Your task to perform on an android device: allow cookies in the chrome app Image 0: 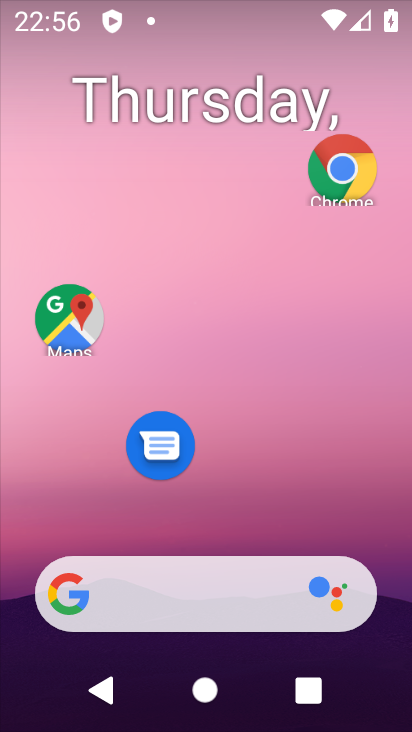
Step 0: drag from (210, 511) to (400, 507)
Your task to perform on an android device: allow cookies in the chrome app Image 1: 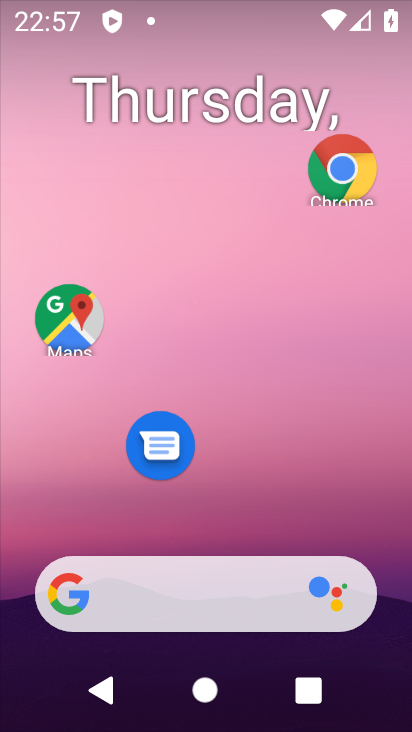
Step 1: click (348, 158)
Your task to perform on an android device: allow cookies in the chrome app Image 2: 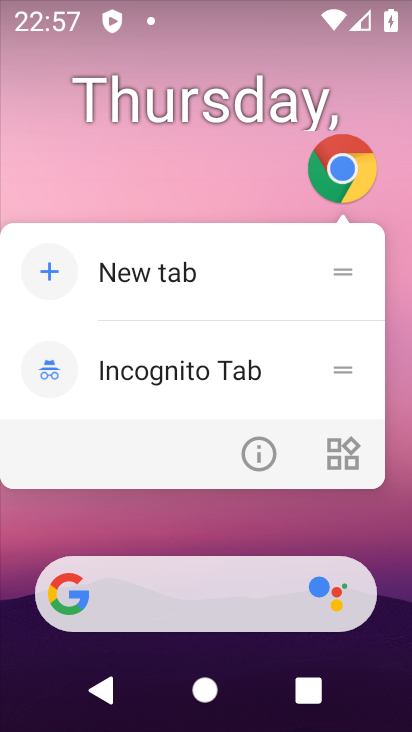
Step 2: click (256, 462)
Your task to perform on an android device: allow cookies in the chrome app Image 3: 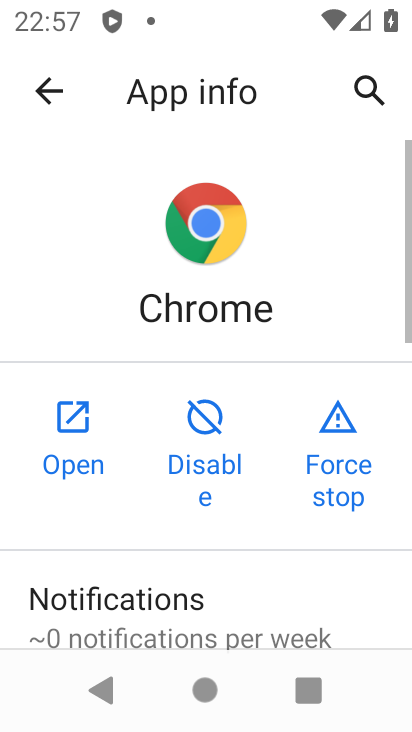
Step 3: click (103, 409)
Your task to perform on an android device: allow cookies in the chrome app Image 4: 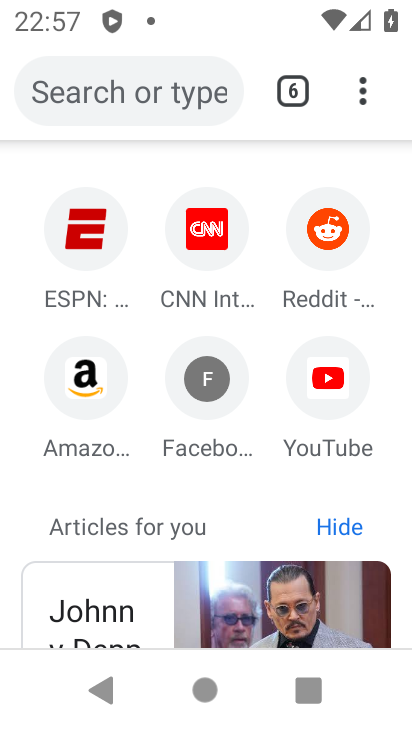
Step 4: drag from (270, 485) to (277, 179)
Your task to perform on an android device: allow cookies in the chrome app Image 5: 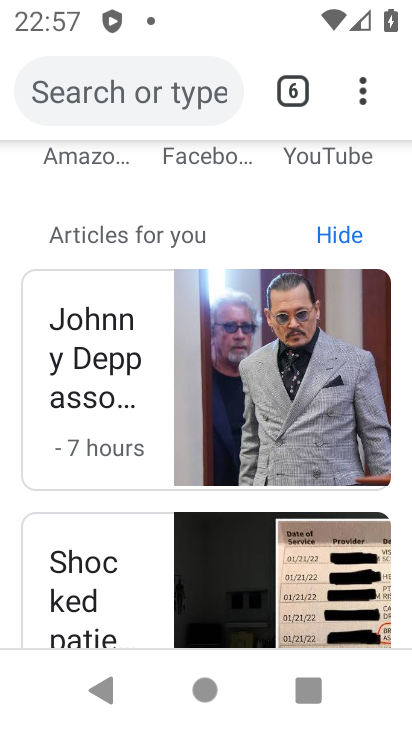
Step 5: drag from (261, 216) to (285, 647)
Your task to perform on an android device: allow cookies in the chrome app Image 6: 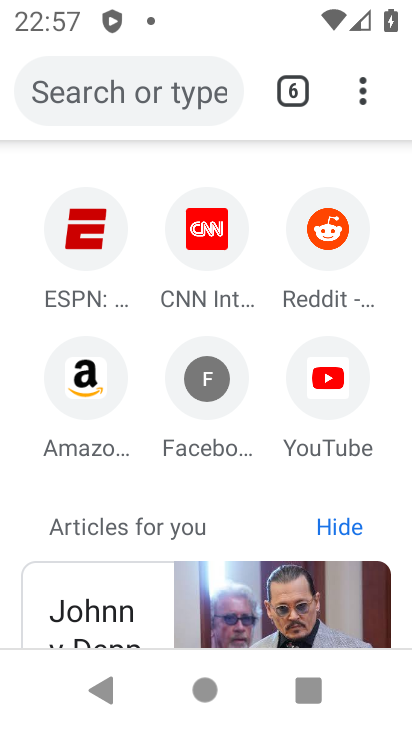
Step 6: click (348, 87)
Your task to perform on an android device: allow cookies in the chrome app Image 7: 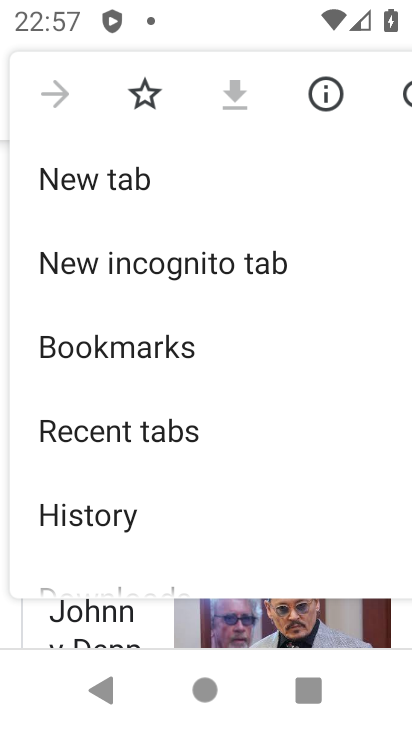
Step 7: drag from (207, 541) to (300, 19)
Your task to perform on an android device: allow cookies in the chrome app Image 8: 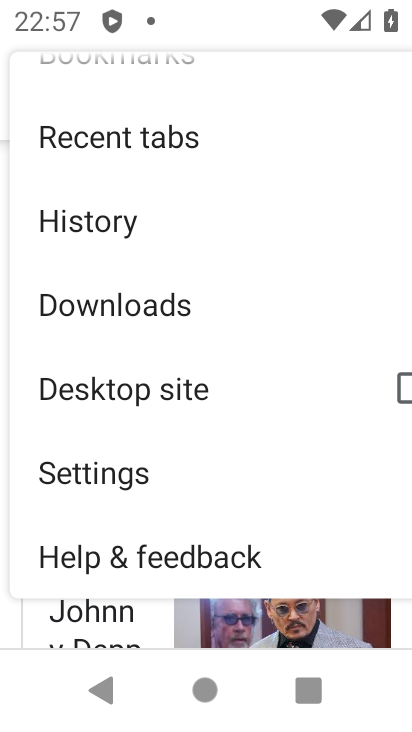
Step 8: click (146, 491)
Your task to perform on an android device: allow cookies in the chrome app Image 9: 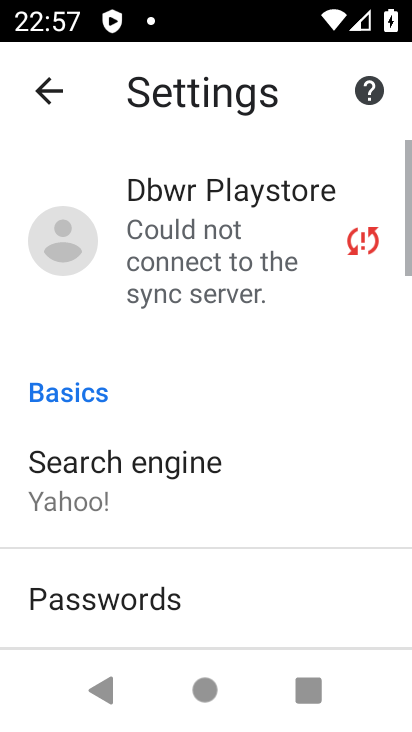
Step 9: drag from (164, 506) to (258, 160)
Your task to perform on an android device: allow cookies in the chrome app Image 10: 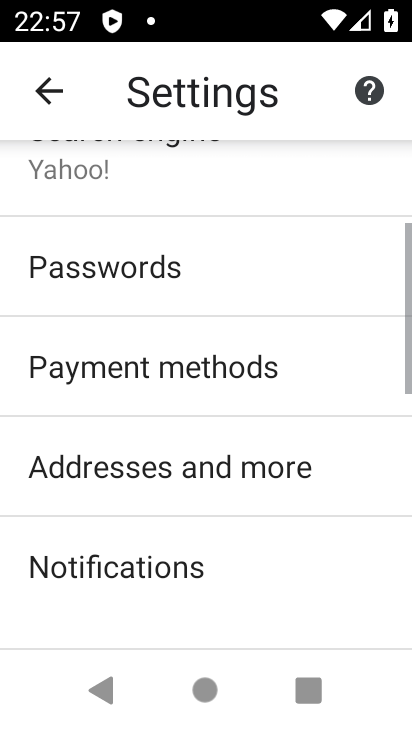
Step 10: drag from (195, 506) to (248, 198)
Your task to perform on an android device: allow cookies in the chrome app Image 11: 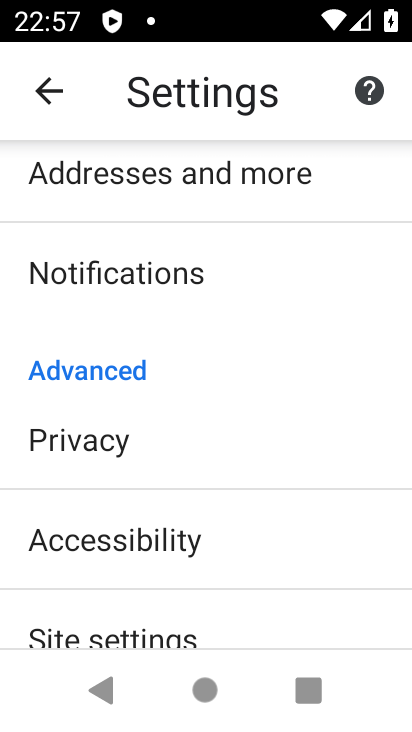
Step 11: drag from (171, 602) to (203, 257)
Your task to perform on an android device: allow cookies in the chrome app Image 12: 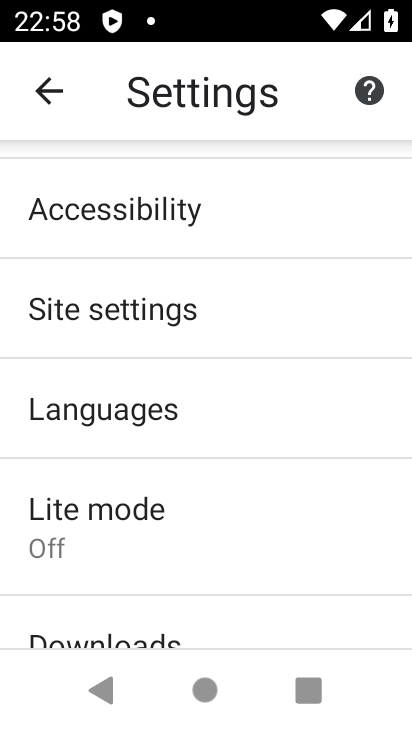
Step 12: click (190, 322)
Your task to perform on an android device: allow cookies in the chrome app Image 13: 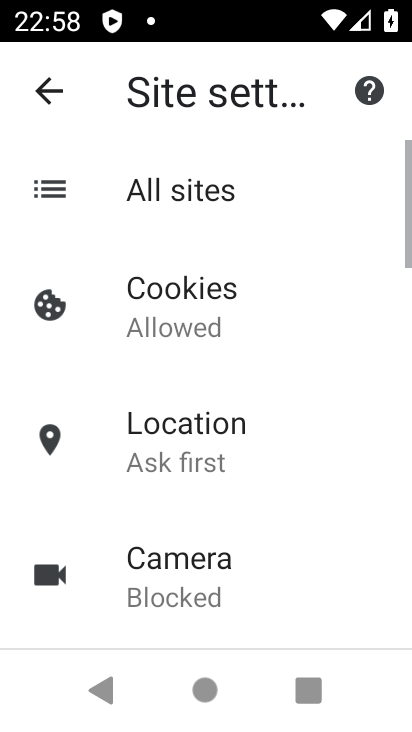
Step 13: click (191, 300)
Your task to perform on an android device: allow cookies in the chrome app Image 14: 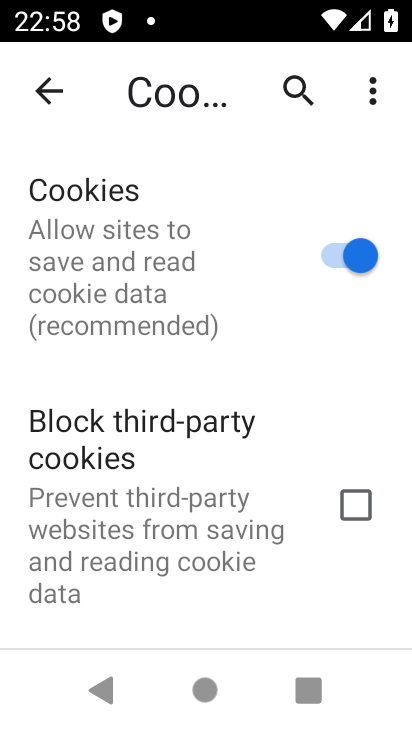
Step 14: task complete